Your task to perform on an android device: turn off smart reply in the gmail app Image 0: 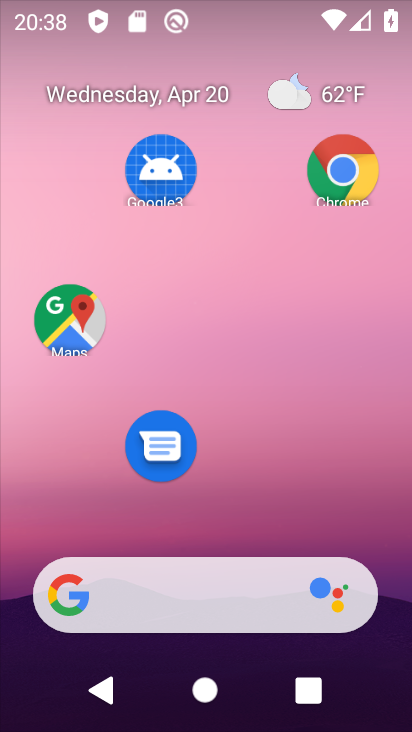
Step 0: drag from (265, 496) to (268, 306)
Your task to perform on an android device: turn off smart reply in the gmail app Image 1: 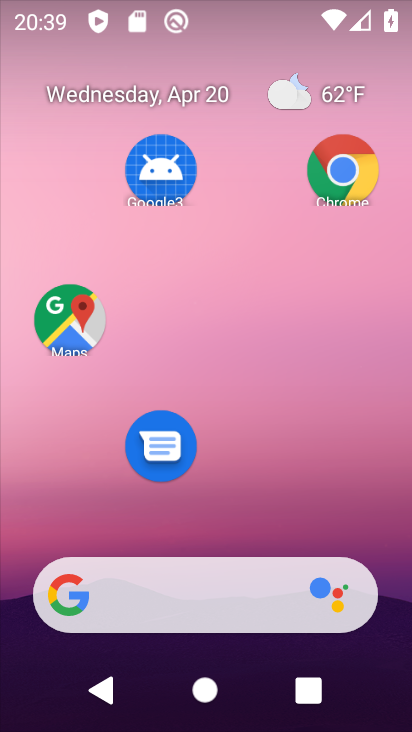
Step 1: drag from (245, 501) to (193, 9)
Your task to perform on an android device: turn off smart reply in the gmail app Image 2: 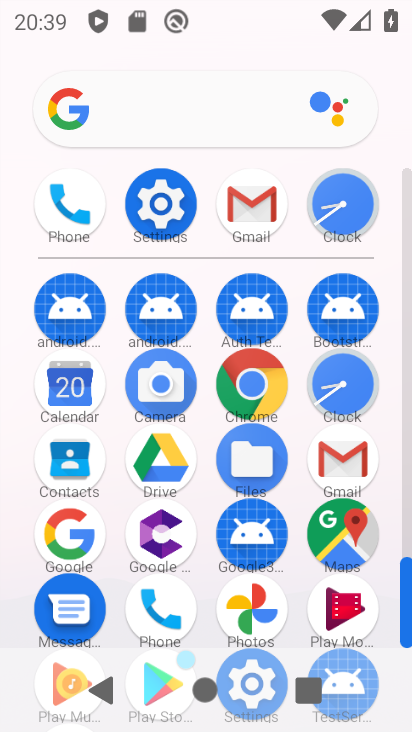
Step 2: click (252, 204)
Your task to perform on an android device: turn off smart reply in the gmail app Image 3: 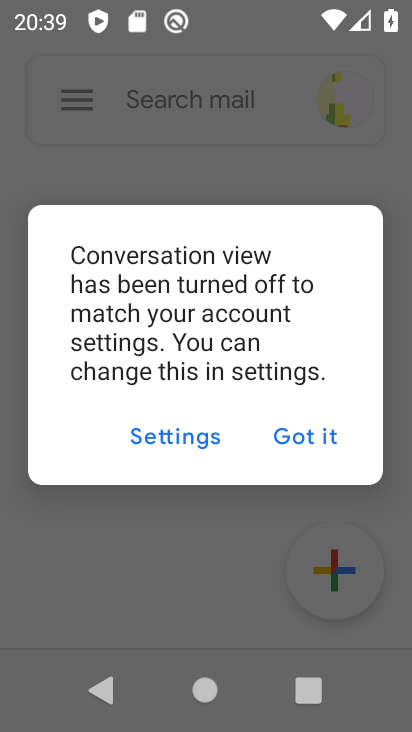
Step 3: click (284, 442)
Your task to perform on an android device: turn off smart reply in the gmail app Image 4: 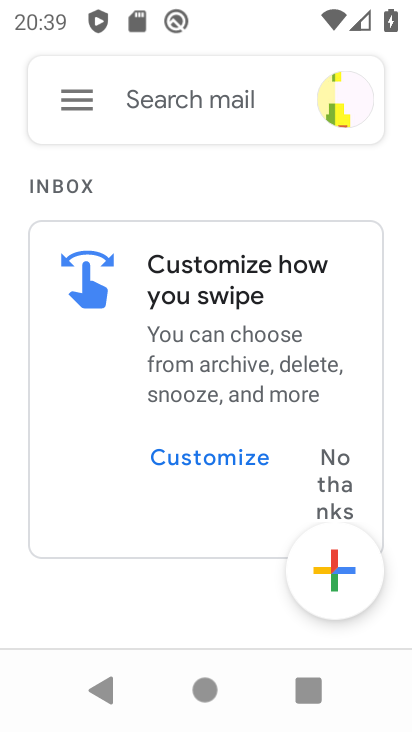
Step 4: click (68, 97)
Your task to perform on an android device: turn off smart reply in the gmail app Image 5: 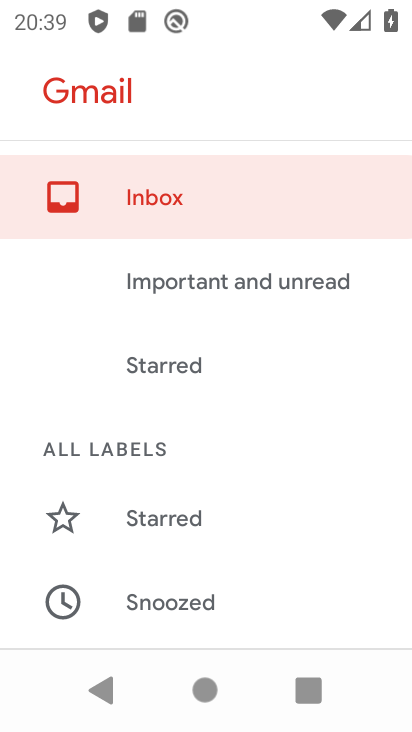
Step 5: drag from (256, 566) to (236, 208)
Your task to perform on an android device: turn off smart reply in the gmail app Image 6: 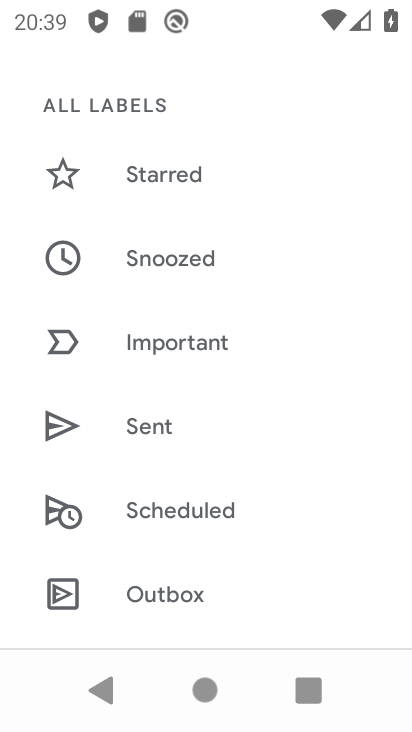
Step 6: drag from (252, 573) to (292, 194)
Your task to perform on an android device: turn off smart reply in the gmail app Image 7: 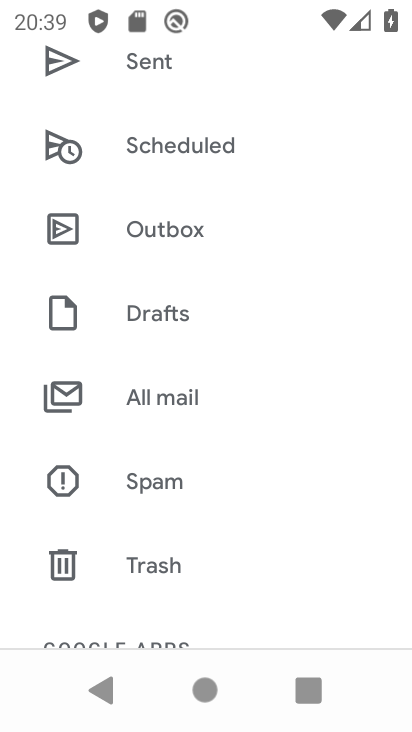
Step 7: drag from (271, 571) to (281, 191)
Your task to perform on an android device: turn off smart reply in the gmail app Image 8: 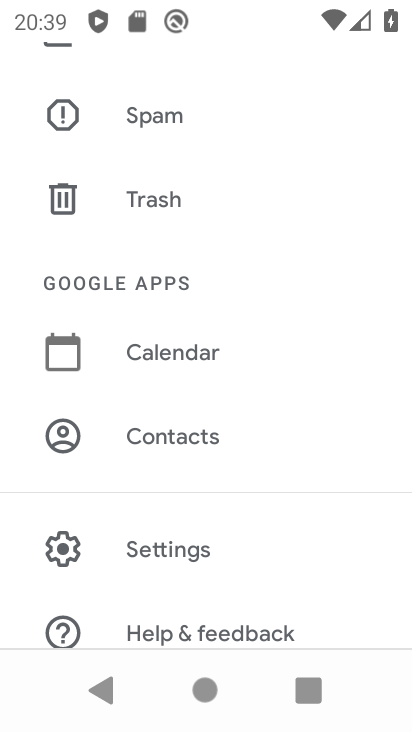
Step 8: click (158, 548)
Your task to perform on an android device: turn off smart reply in the gmail app Image 9: 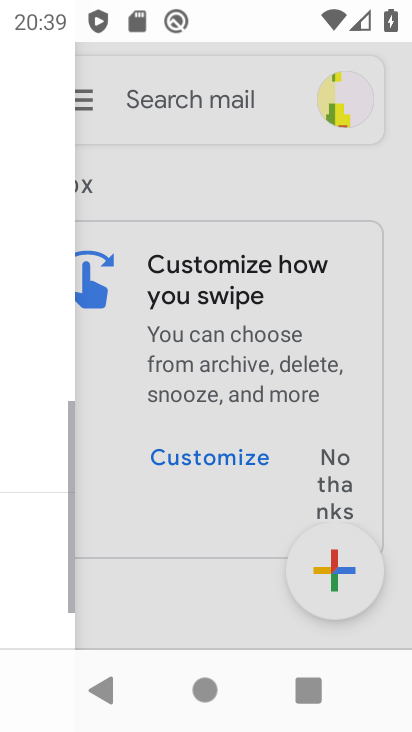
Step 9: click (158, 548)
Your task to perform on an android device: turn off smart reply in the gmail app Image 10: 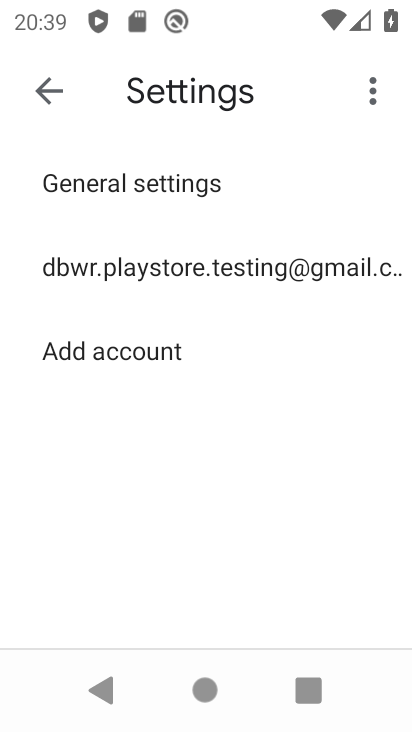
Step 10: click (153, 179)
Your task to perform on an android device: turn off smart reply in the gmail app Image 11: 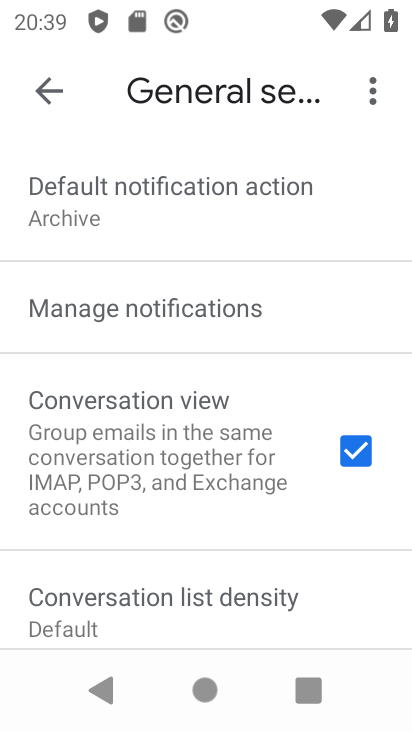
Step 11: drag from (297, 548) to (297, 175)
Your task to perform on an android device: turn off smart reply in the gmail app Image 12: 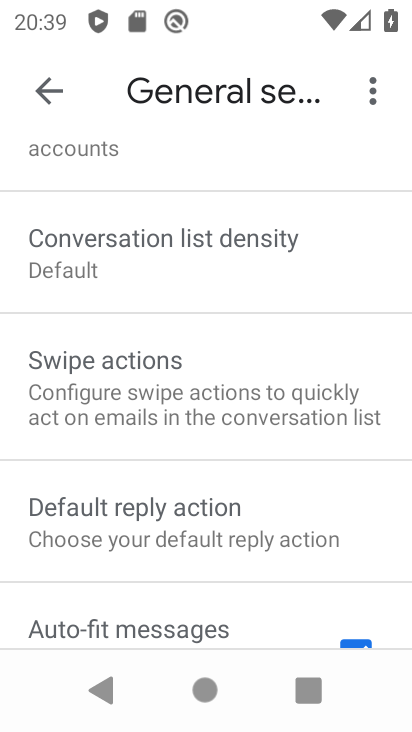
Step 12: drag from (267, 578) to (262, 257)
Your task to perform on an android device: turn off smart reply in the gmail app Image 13: 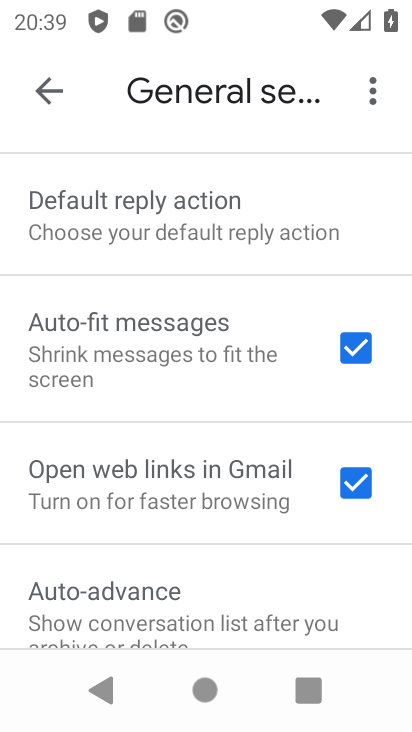
Step 13: drag from (259, 543) to (254, 187)
Your task to perform on an android device: turn off smart reply in the gmail app Image 14: 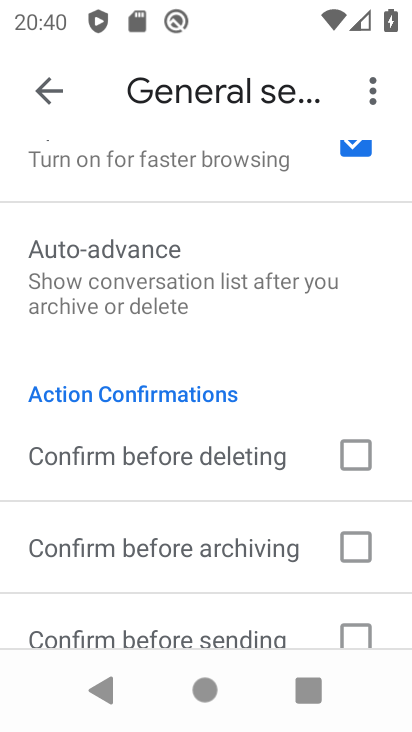
Step 14: click (47, 80)
Your task to perform on an android device: turn off smart reply in the gmail app Image 15: 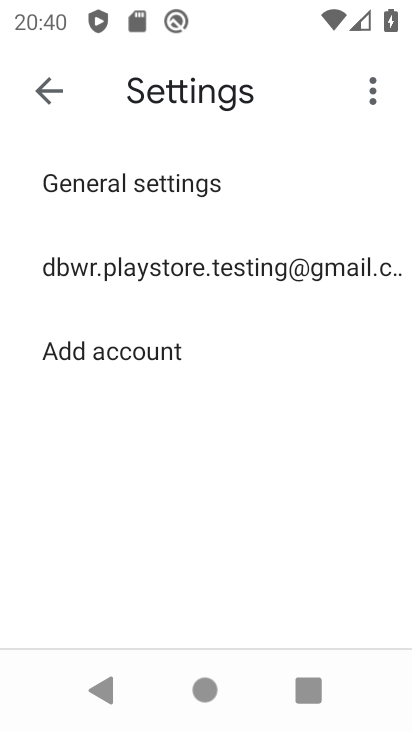
Step 15: click (226, 271)
Your task to perform on an android device: turn off smart reply in the gmail app Image 16: 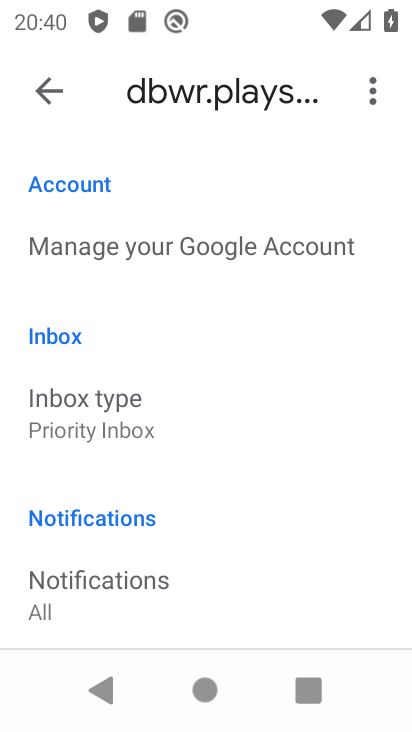
Step 16: drag from (236, 521) to (238, 82)
Your task to perform on an android device: turn off smart reply in the gmail app Image 17: 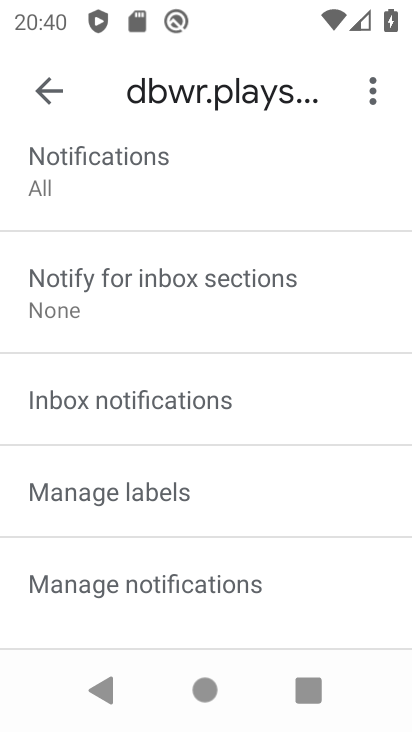
Step 17: drag from (260, 532) to (247, 228)
Your task to perform on an android device: turn off smart reply in the gmail app Image 18: 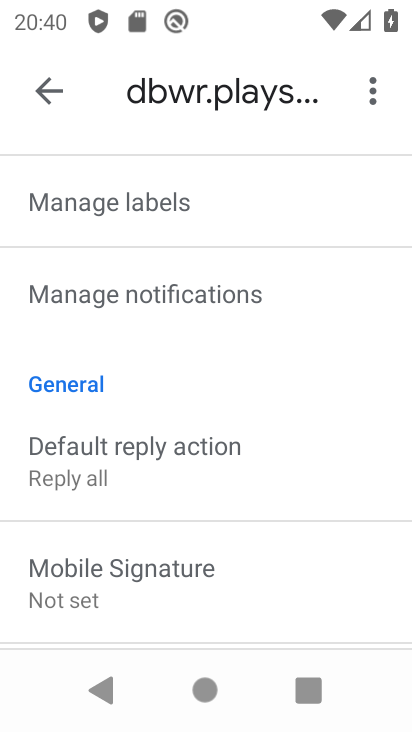
Step 18: drag from (240, 514) to (255, 167)
Your task to perform on an android device: turn off smart reply in the gmail app Image 19: 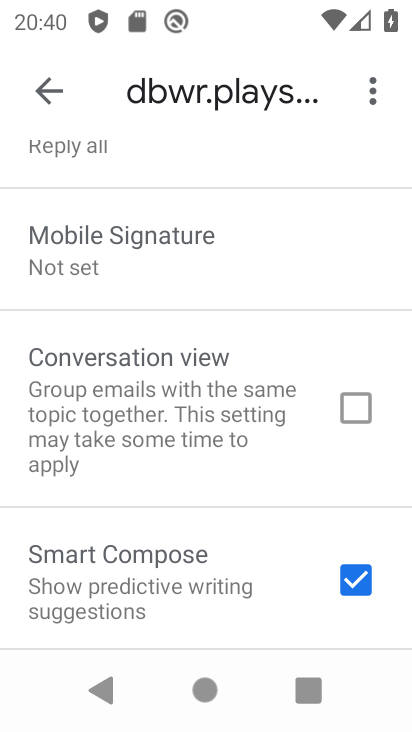
Step 19: drag from (271, 497) to (287, 260)
Your task to perform on an android device: turn off smart reply in the gmail app Image 20: 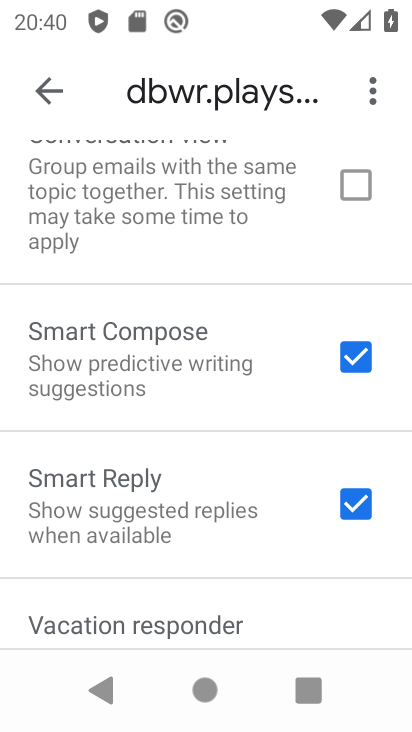
Step 20: click (350, 504)
Your task to perform on an android device: turn off smart reply in the gmail app Image 21: 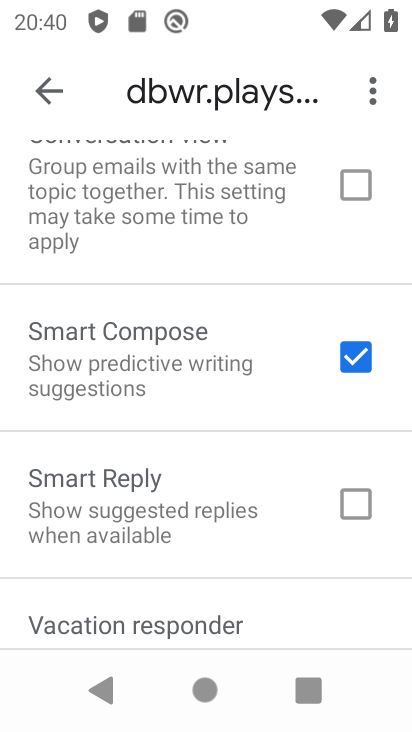
Step 21: task complete